Your task to perform on an android device: Search for Mexican restaurants on Maps Image 0: 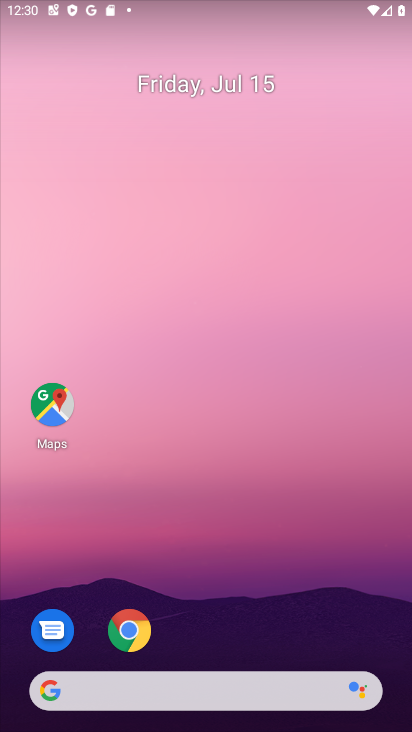
Step 0: click (59, 416)
Your task to perform on an android device: Search for Mexican restaurants on Maps Image 1: 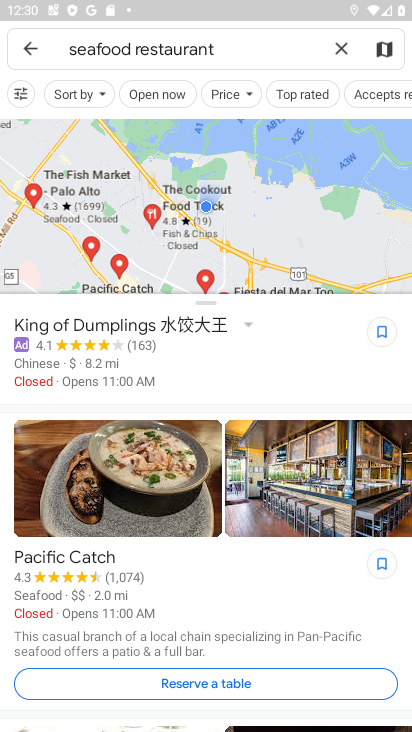
Step 1: click (36, 45)
Your task to perform on an android device: Search for Mexican restaurants on Maps Image 2: 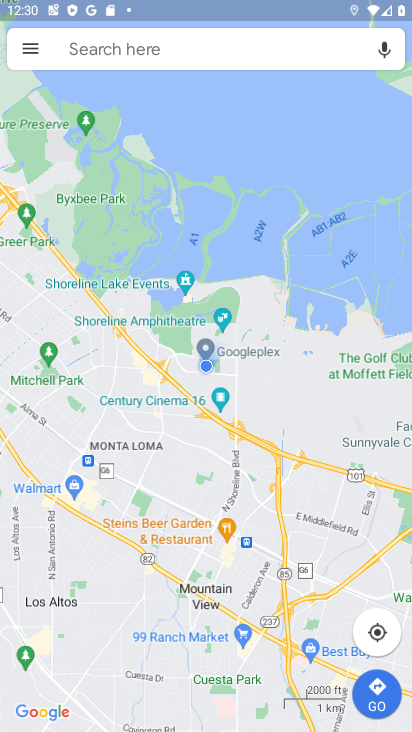
Step 2: click (229, 51)
Your task to perform on an android device: Search for Mexican restaurants on Maps Image 3: 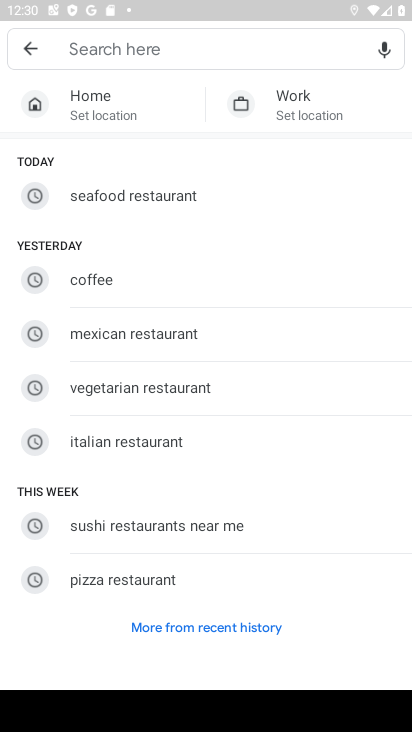
Step 3: click (205, 333)
Your task to perform on an android device: Search for Mexican restaurants on Maps Image 4: 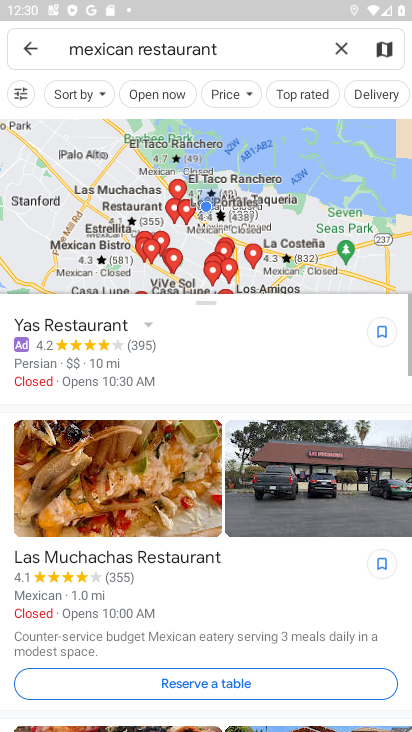
Step 4: task complete